Your task to perform on an android device: turn on improve location accuracy Image 0: 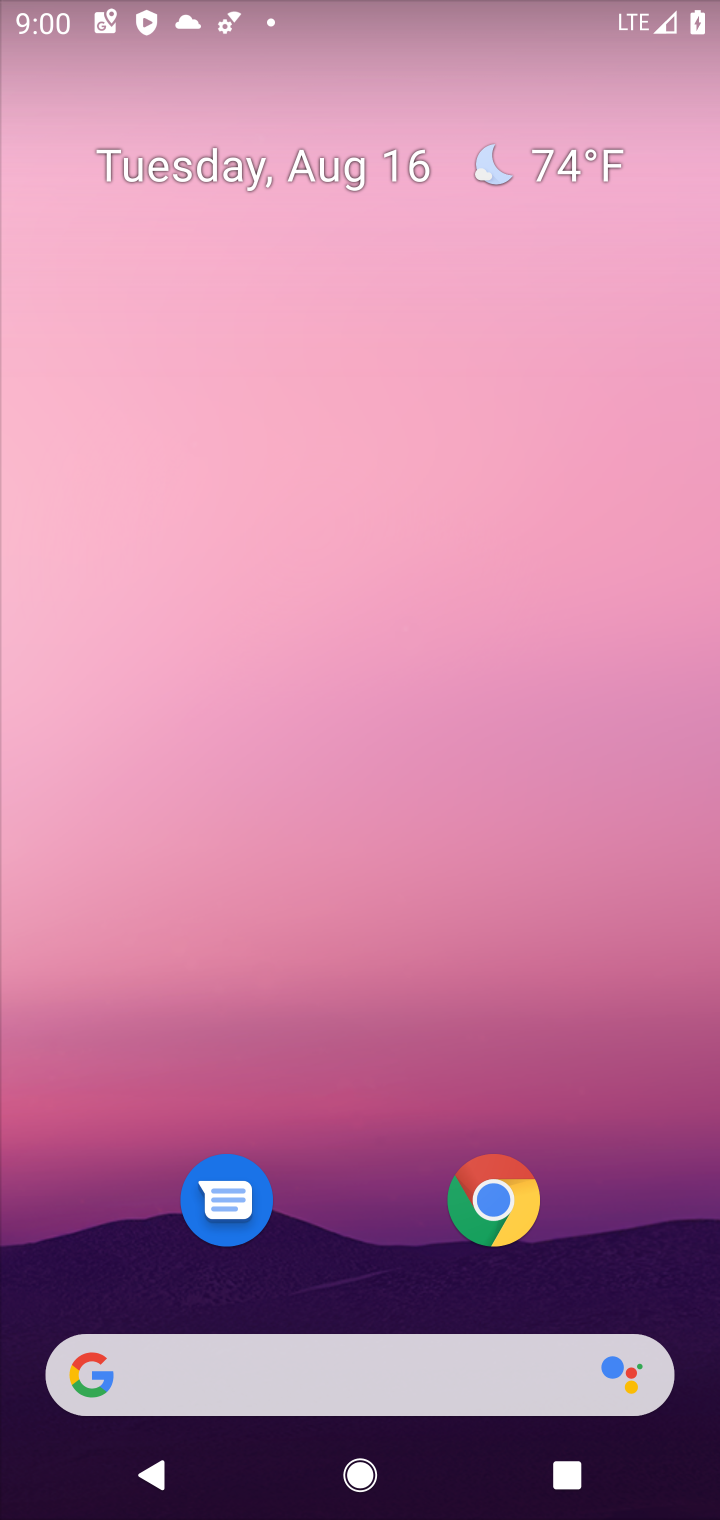
Step 0: drag from (644, 1286) to (598, 207)
Your task to perform on an android device: turn on improve location accuracy Image 1: 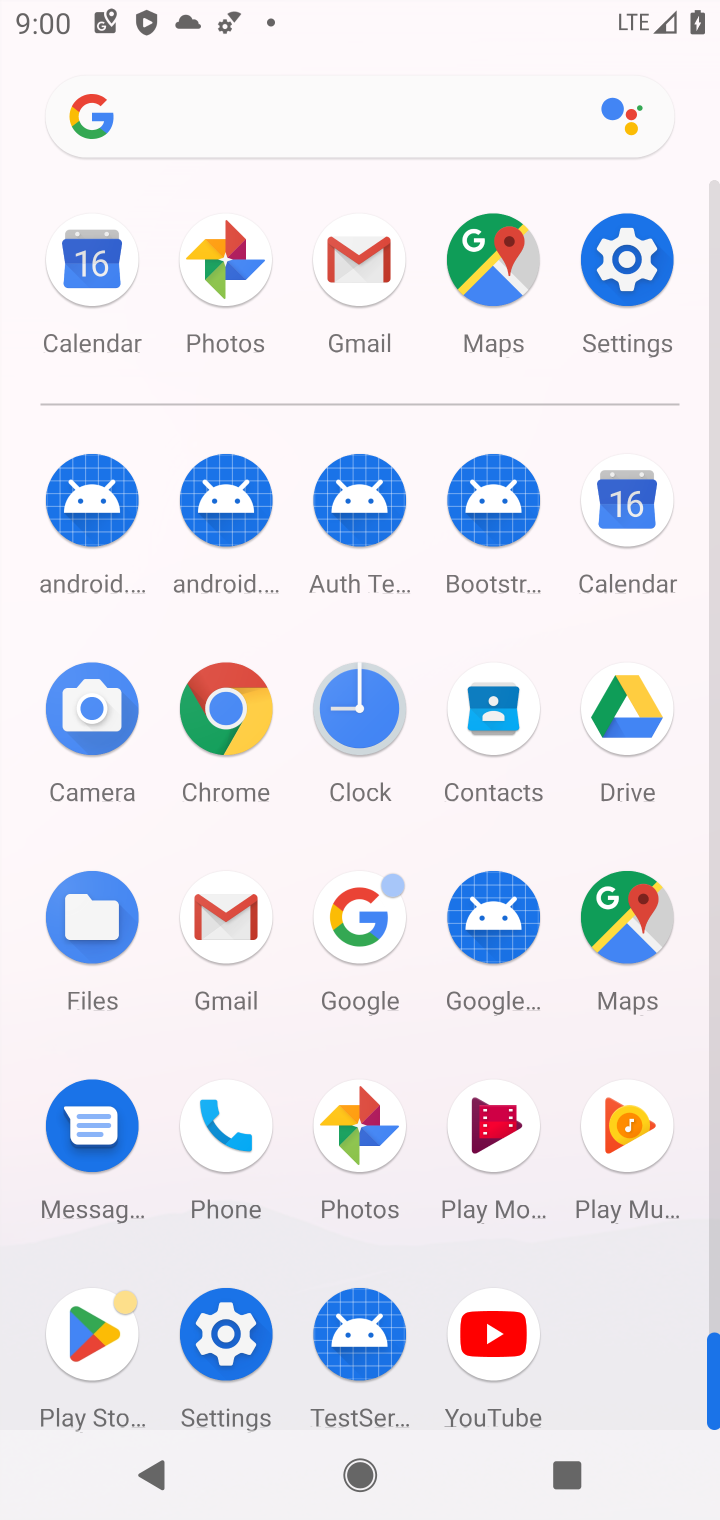
Step 1: click (222, 1338)
Your task to perform on an android device: turn on improve location accuracy Image 2: 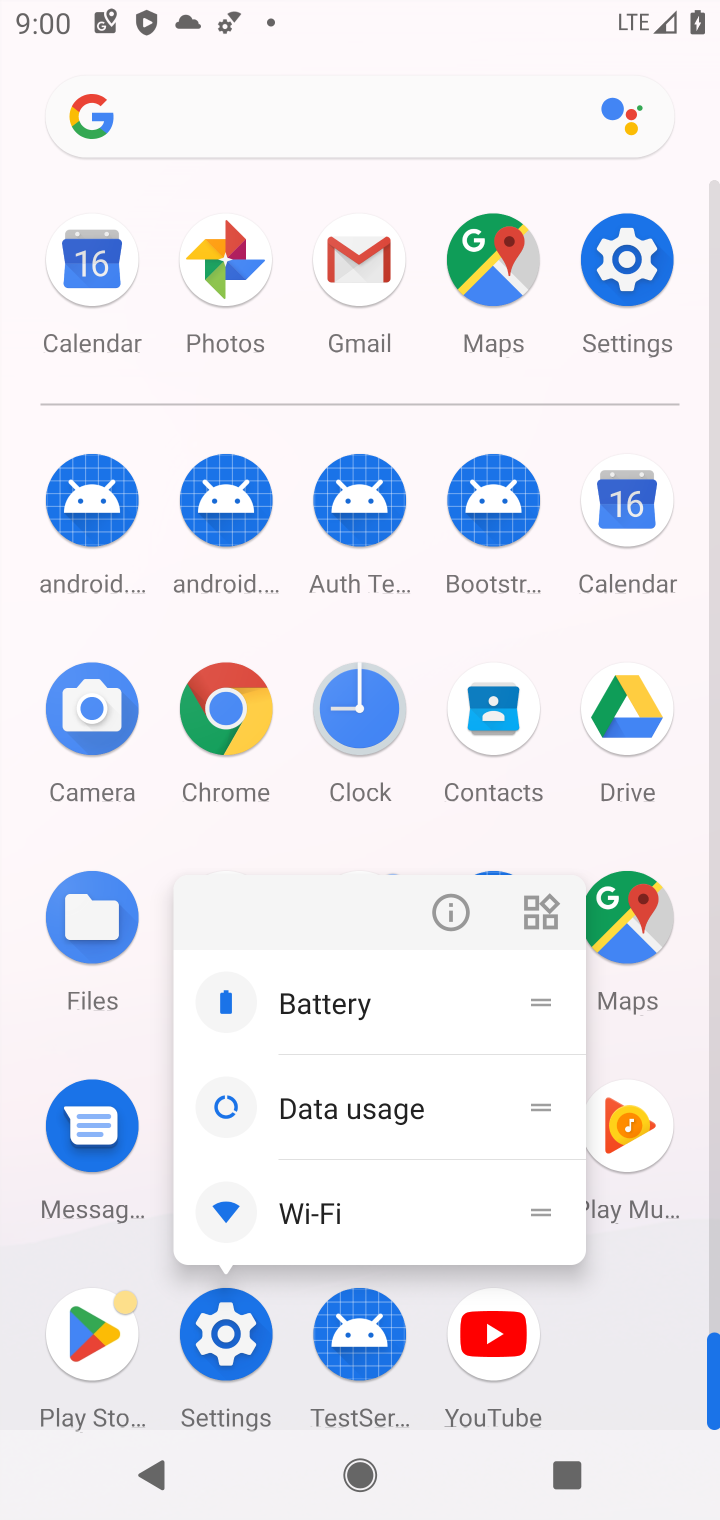
Step 2: click (222, 1338)
Your task to perform on an android device: turn on improve location accuracy Image 3: 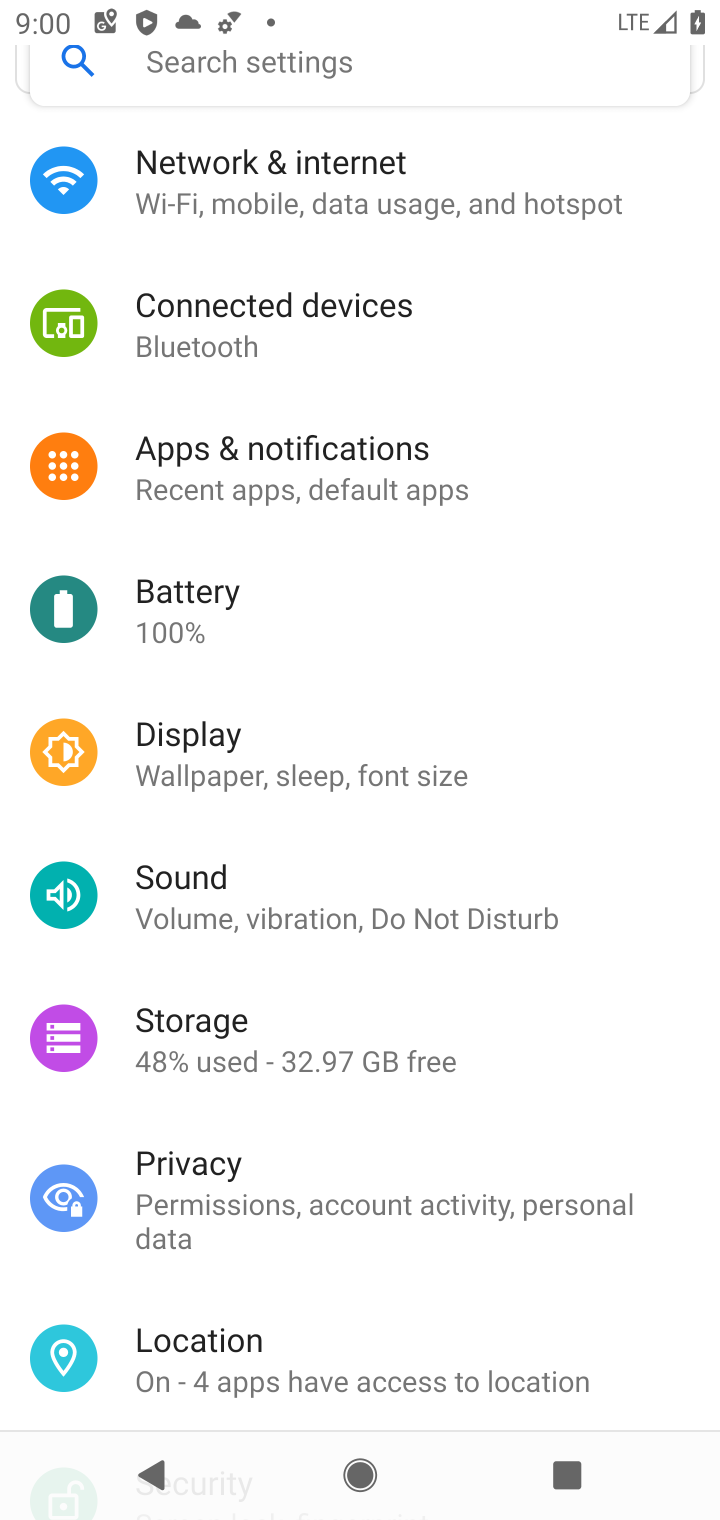
Step 3: drag from (590, 1276) to (608, 375)
Your task to perform on an android device: turn on improve location accuracy Image 4: 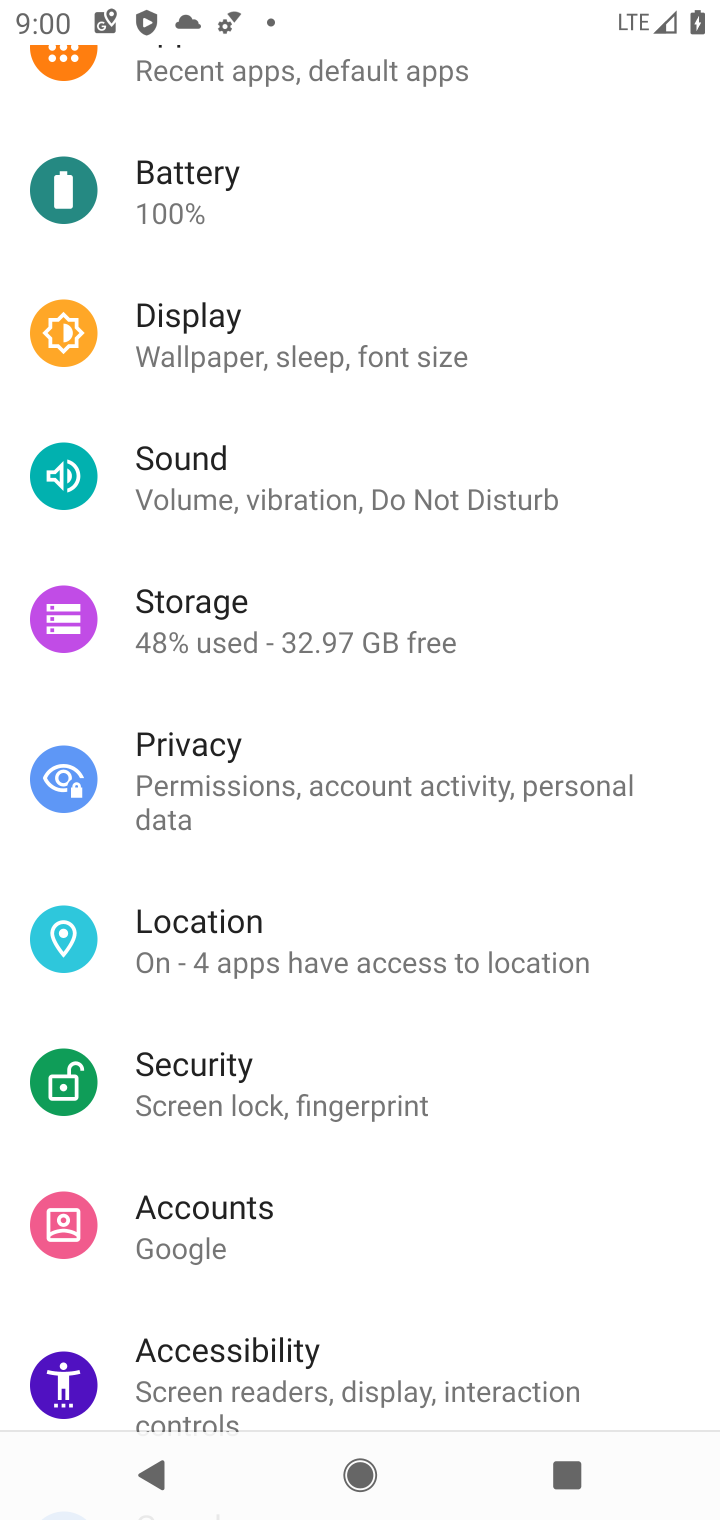
Step 4: click (204, 950)
Your task to perform on an android device: turn on improve location accuracy Image 5: 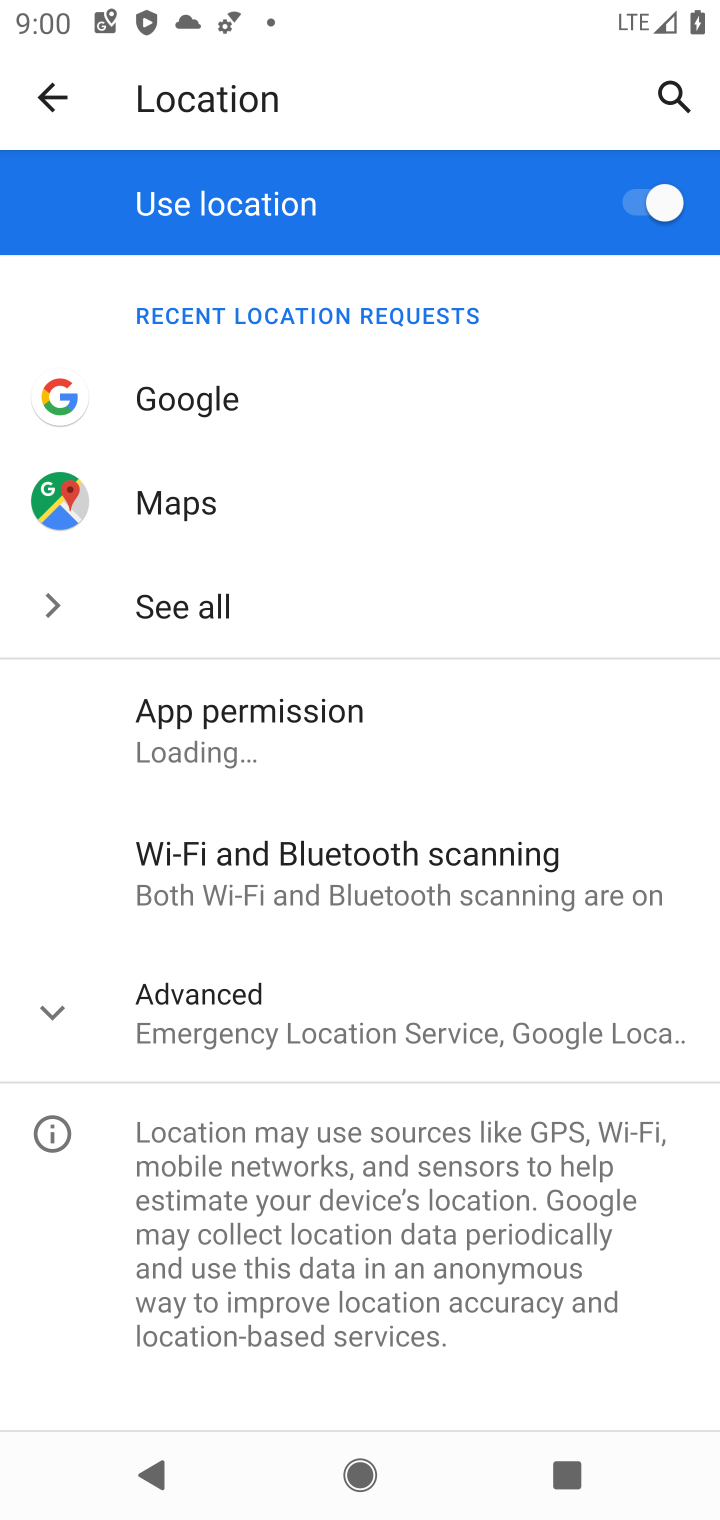
Step 5: click (71, 1026)
Your task to perform on an android device: turn on improve location accuracy Image 6: 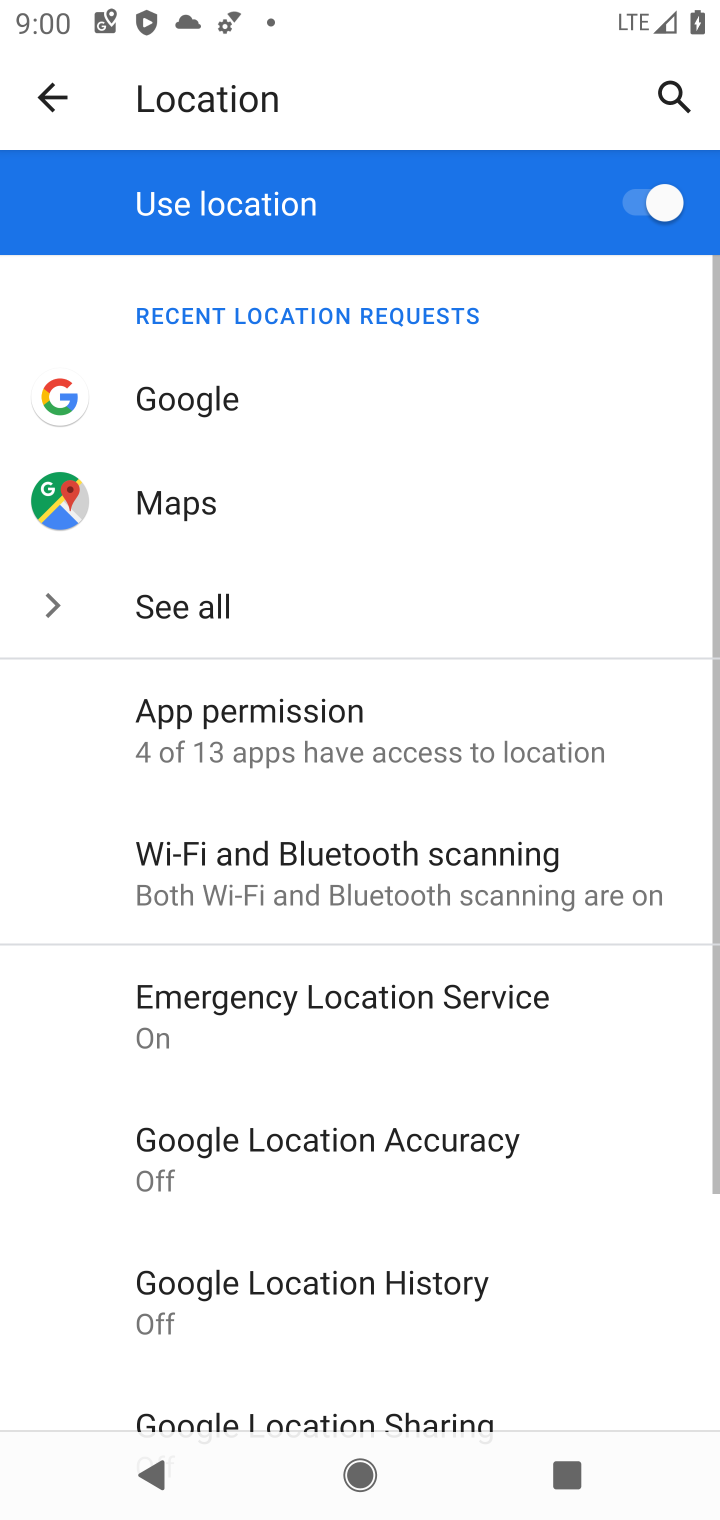
Step 6: click (254, 1151)
Your task to perform on an android device: turn on improve location accuracy Image 7: 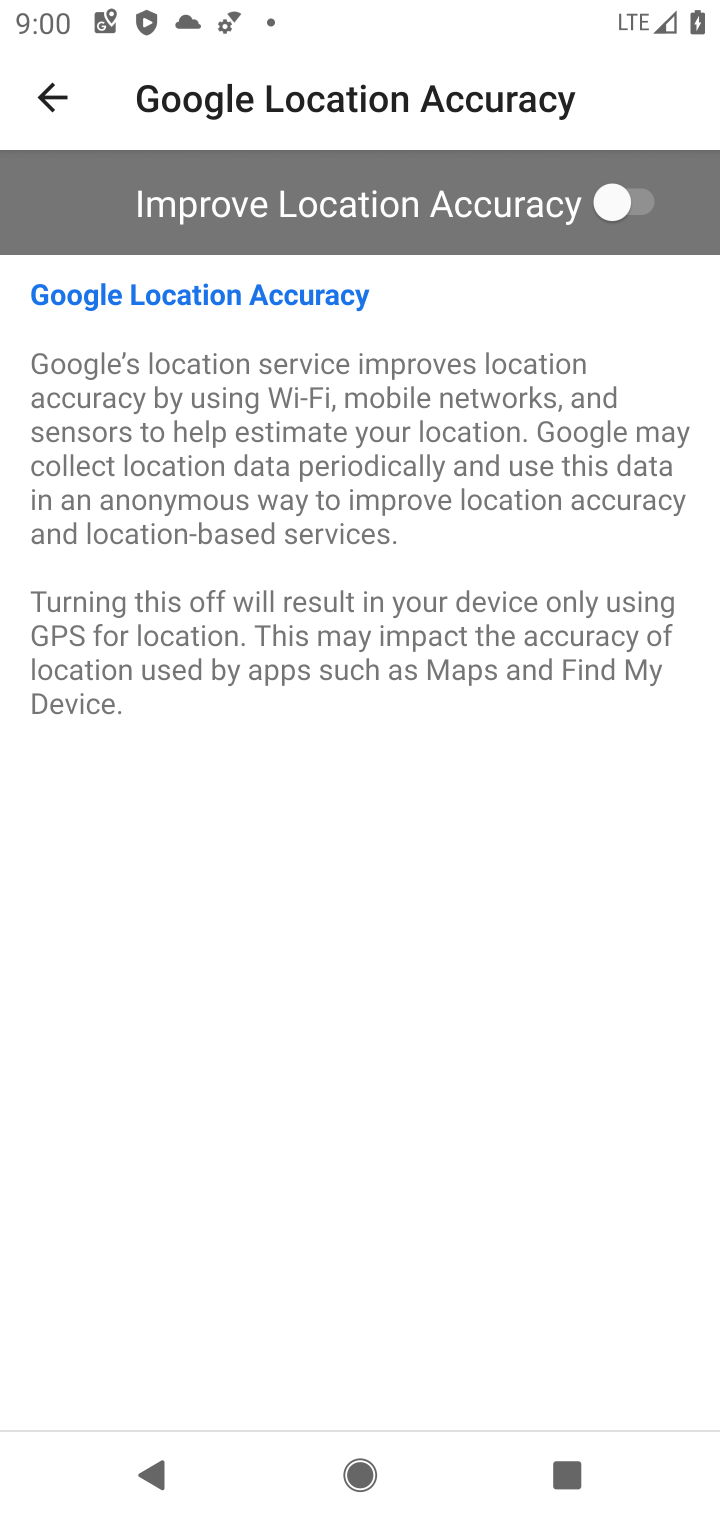
Step 7: click (646, 201)
Your task to perform on an android device: turn on improve location accuracy Image 8: 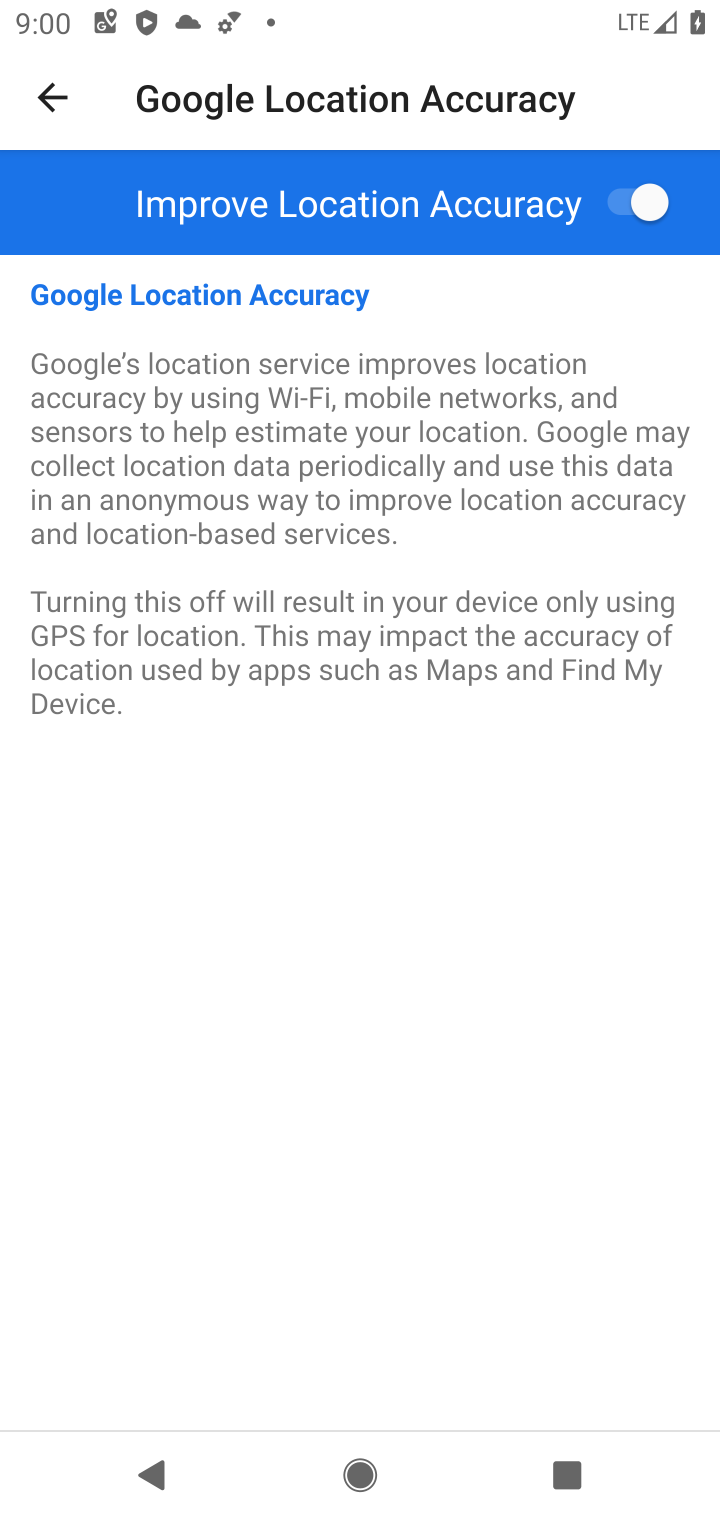
Step 8: task complete